Your task to perform on an android device: snooze an email in the gmail app Image 0: 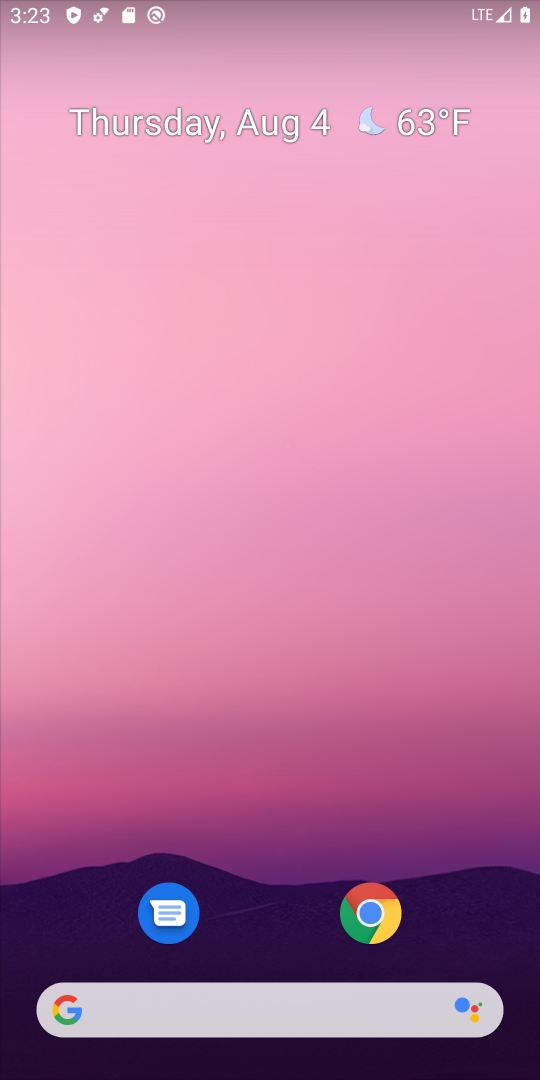
Step 0: drag from (303, 1000) to (259, 24)
Your task to perform on an android device: snooze an email in the gmail app Image 1: 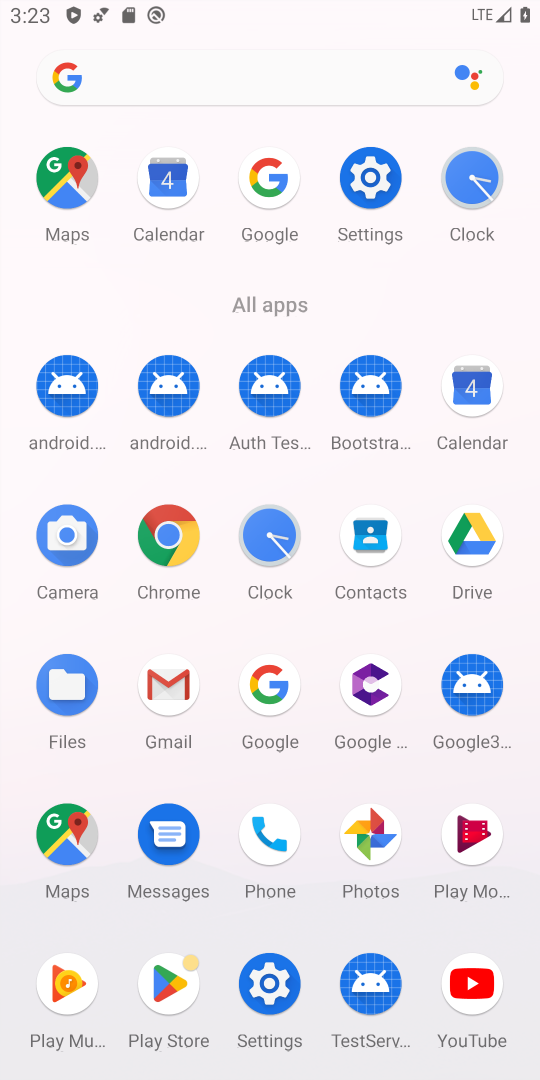
Step 1: click (160, 694)
Your task to perform on an android device: snooze an email in the gmail app Image 2: 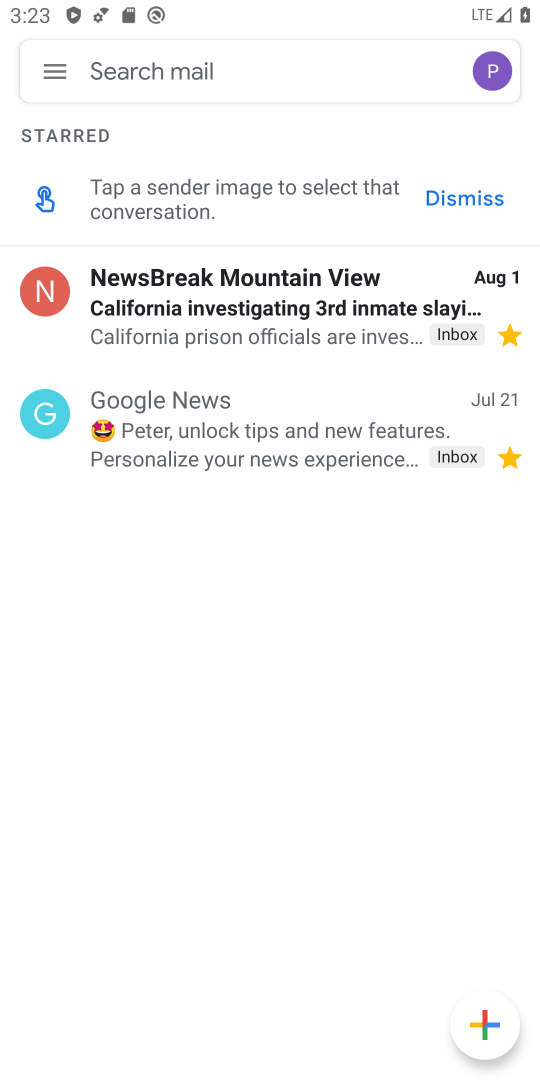
Step 2: click (53, 76)
Your task to perform on an android device: snooze an email in the gmail app Image 3: 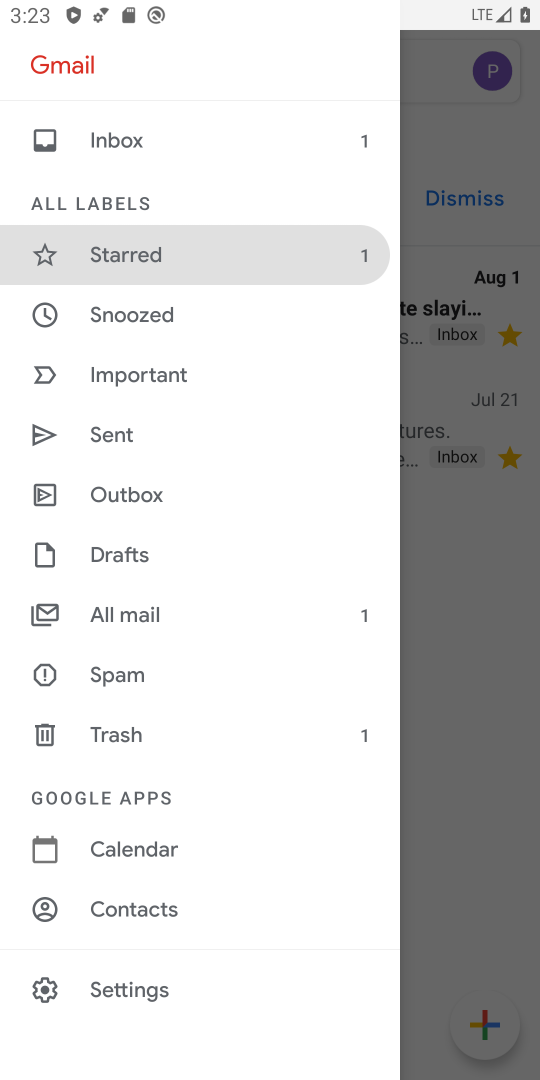
Step 3: click (149, 314)
Your task to perform on an android device: snooze an email in the gmail app Image 4: 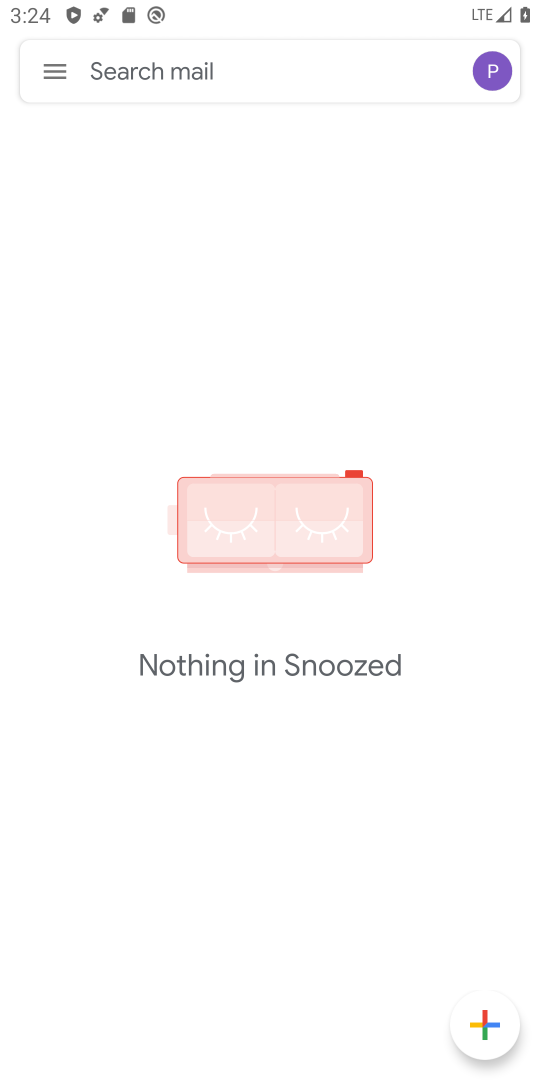
Step 4: task complete